Your task to perform on an android device: How do I get to the nearest Verizon Store? Image 0: 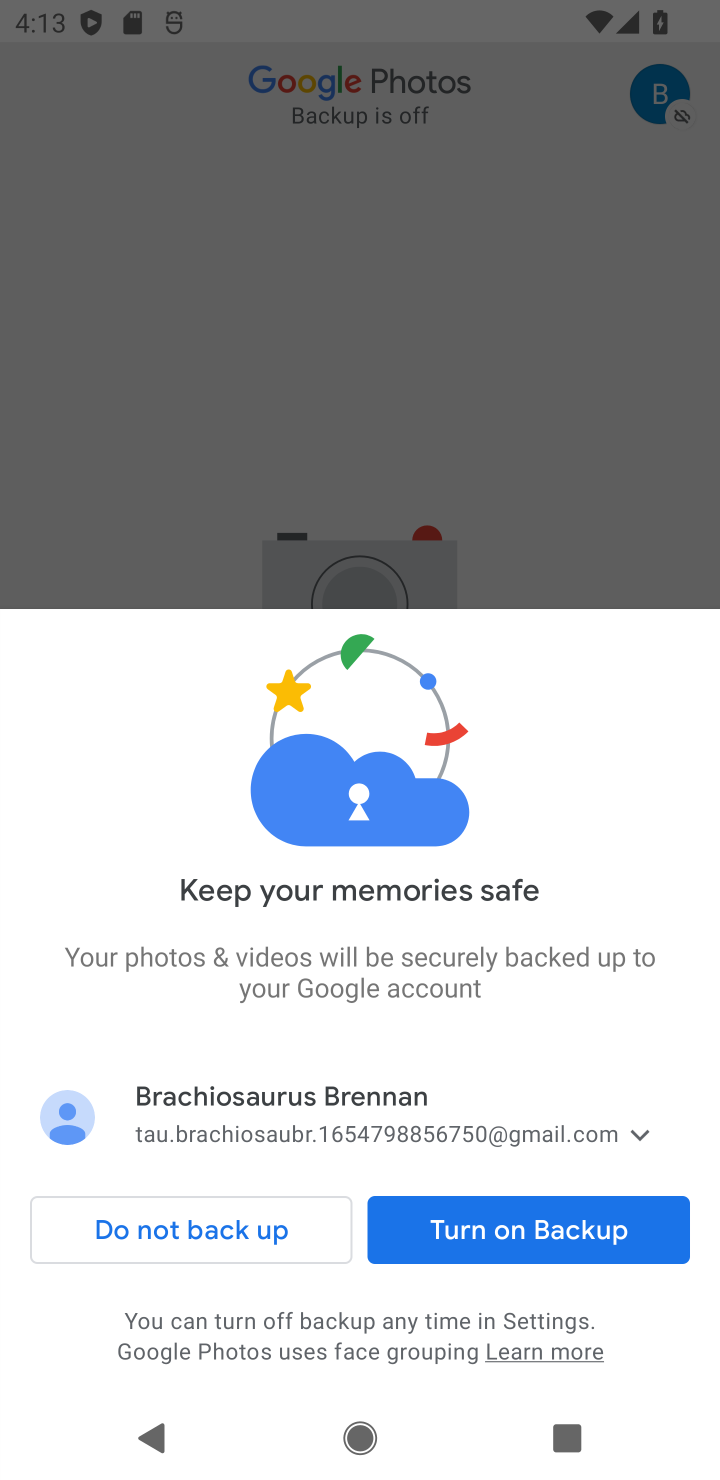
Step 0: press home button
Your task to perform on an android device: How do I get to the nearest Verizon Store? Image 1: 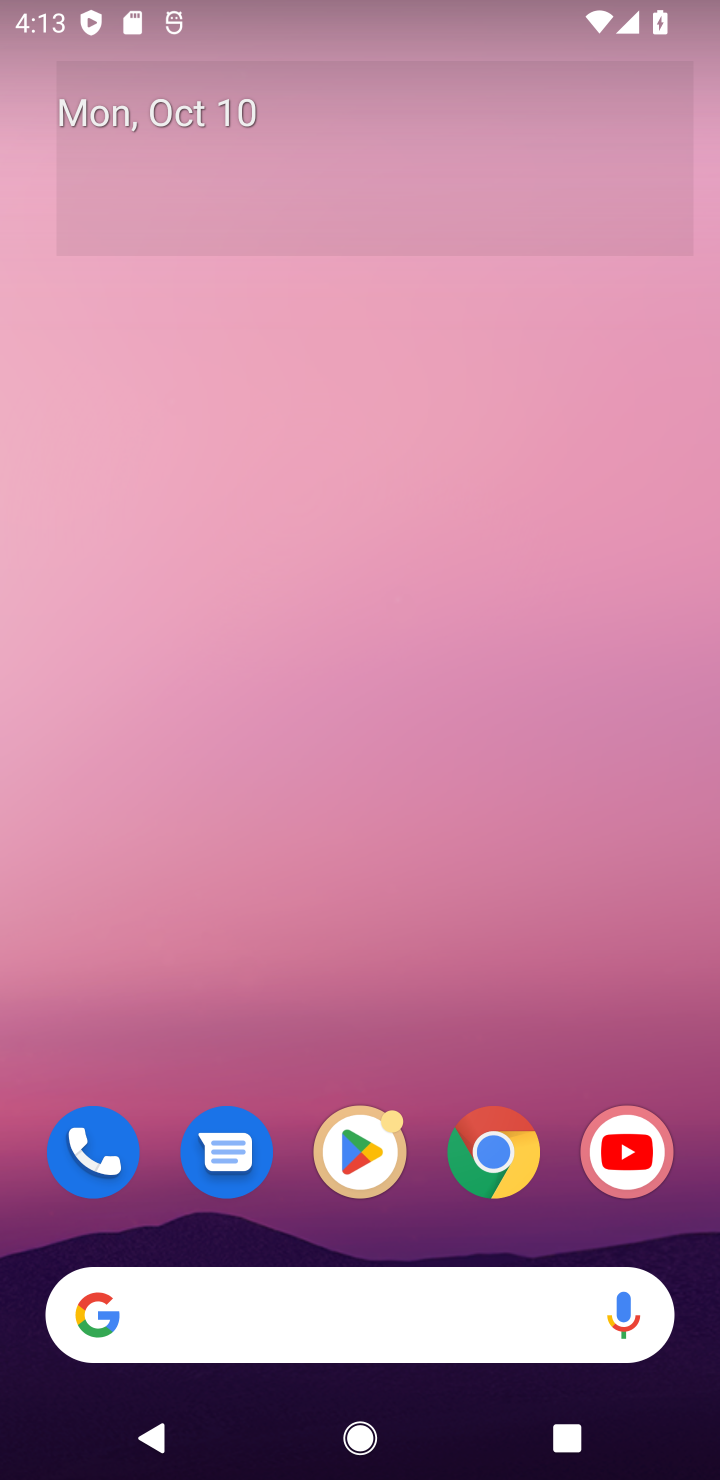
Step 1: drag from (341, 1316) to (389, 142)
Your task to perform on an android device: How do I get to the nearest Verizon Store? Image 2: 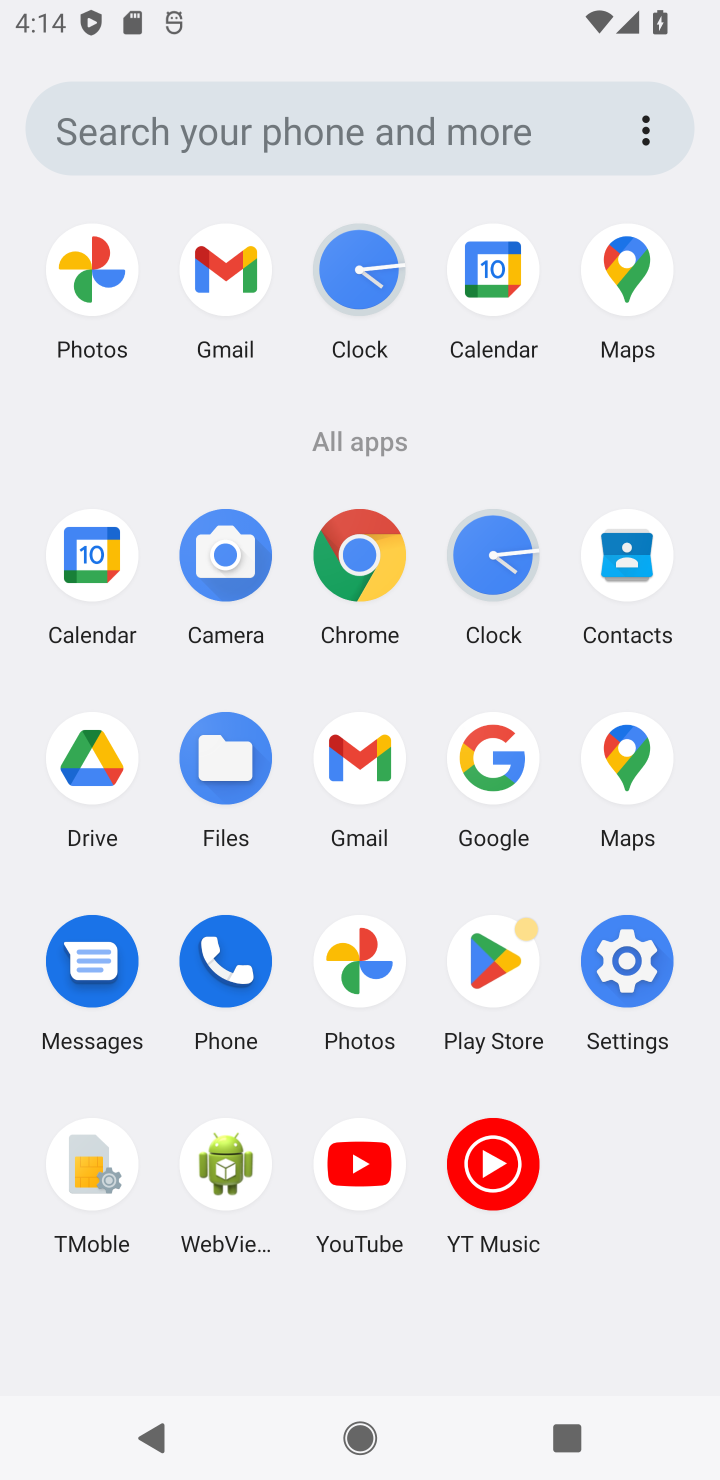
Step 2: click (633, 261)
Your task to perform on an android device: How do I get to the nearest Verizon Store? Image 3: 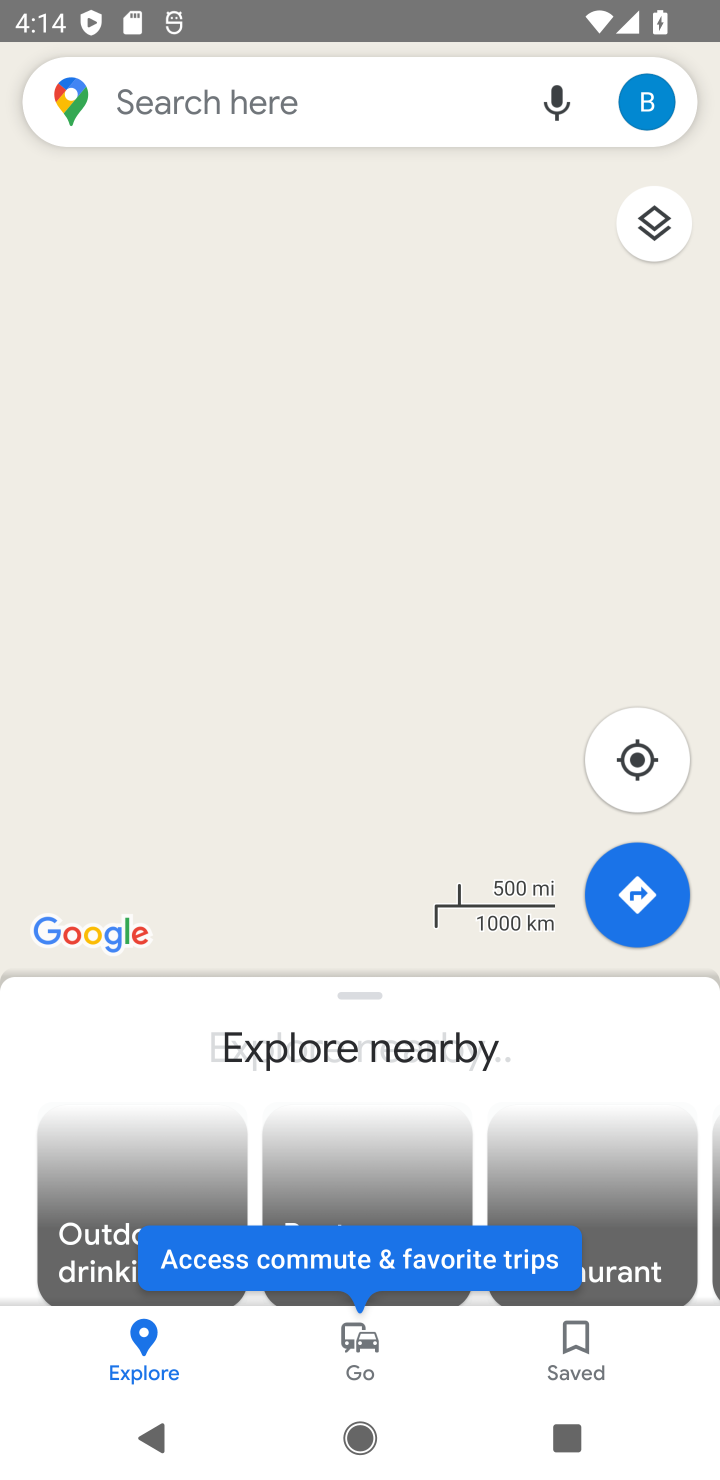
Step 3: click (412, 98)
Your task to perform on an android device: How do I get to the nearest Verizon Store? Image 4: 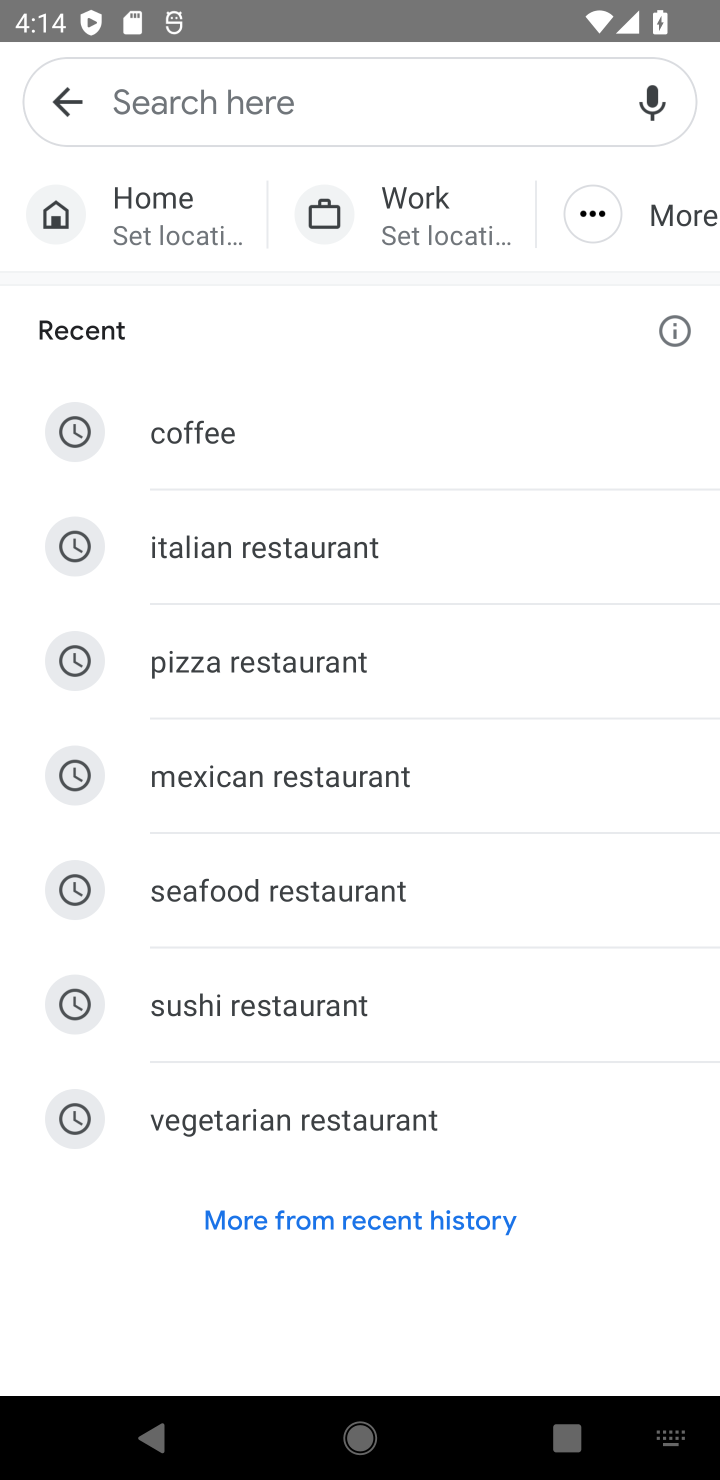
Step 4: type "nearest Verizon Store"
Your task to perform on an android device: How do I get to the nearest Verizon Store? Image 5: 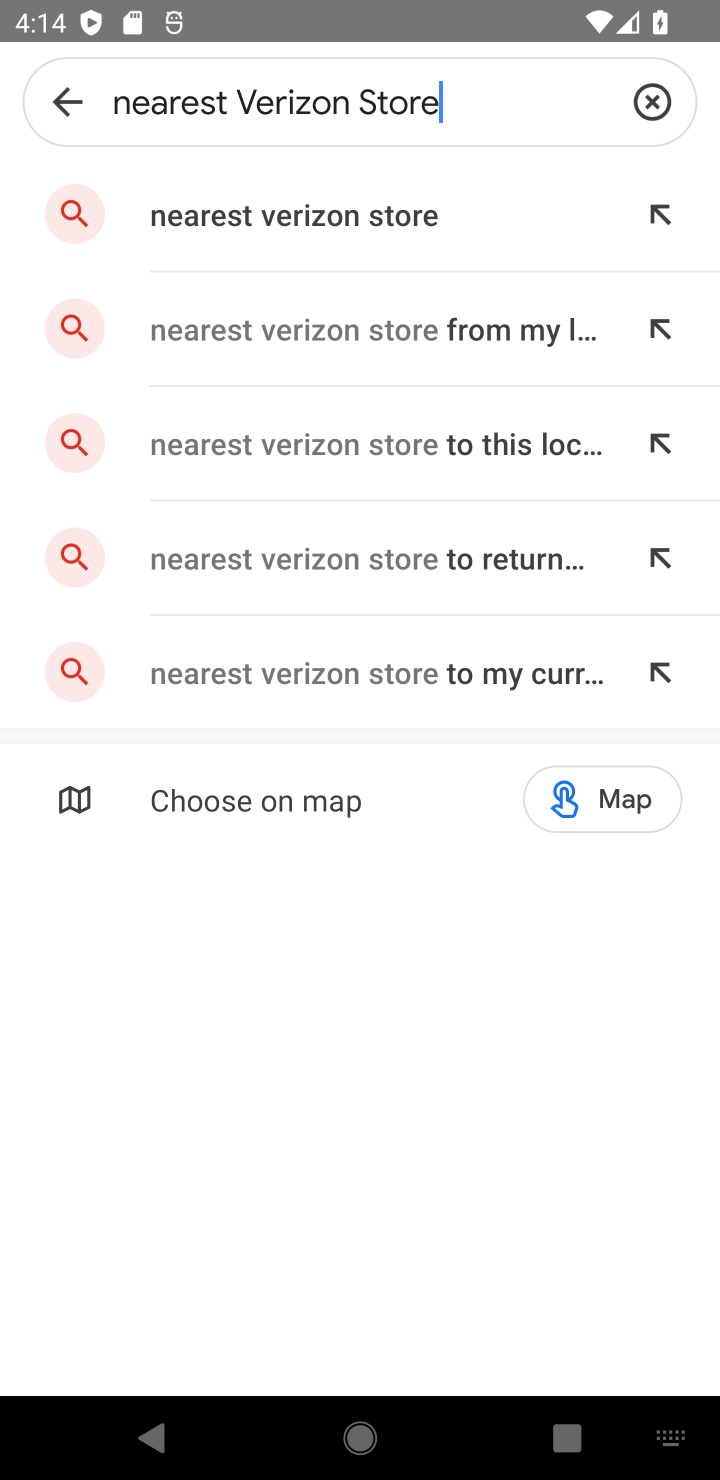
Step 5: click (390, 222)
Your task to perform on an android device: How do I get to the nearest Verizon Store? Image 6: 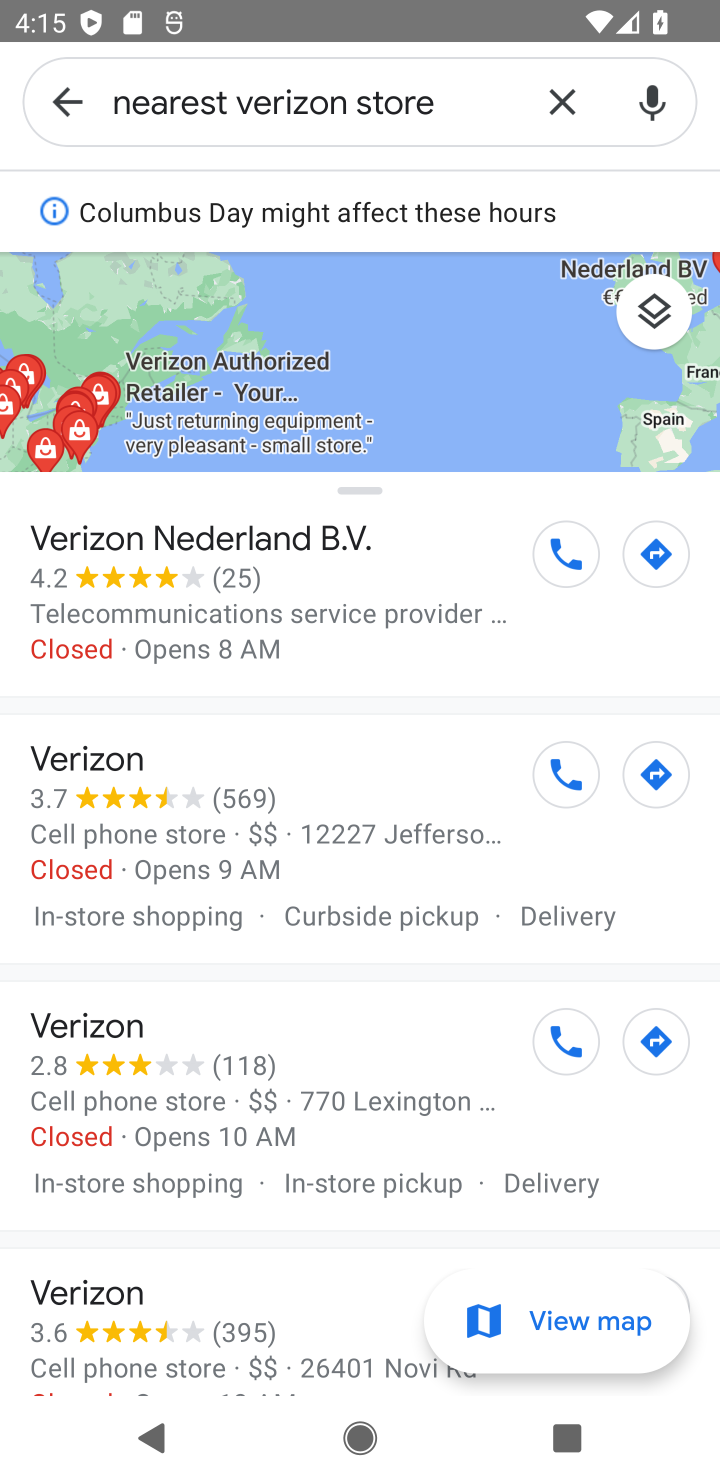
Step 6: task complete